Your task to perform on an android device: Go to calendar. Show me events next week Image 0: 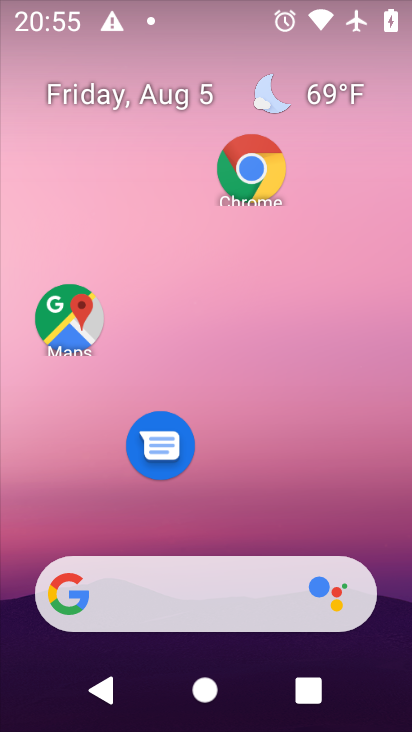
Step 0: drag from (226, 496) to (223, 108)
Your task to perform on an android device: Go to calendar. Show me events next week Image 1: 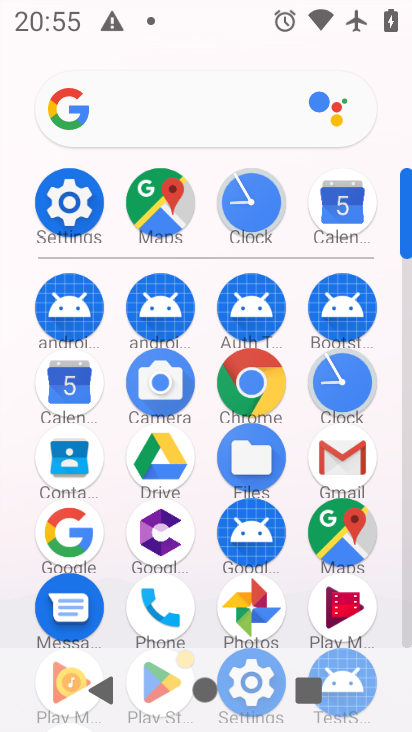
Step 1: click (332, 204)
Your task to perform on an android device: Go to calendar. Show me events next week Image 2: 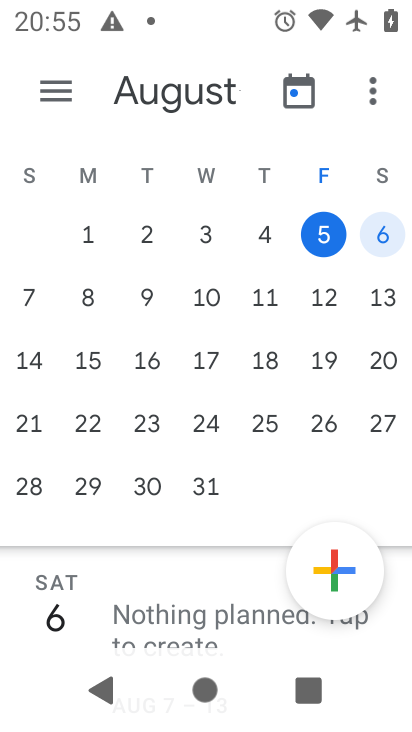
Step 2: click (30, 300)
Your task to perform on an android device: Go to calendar. Show me events next week Image 3: 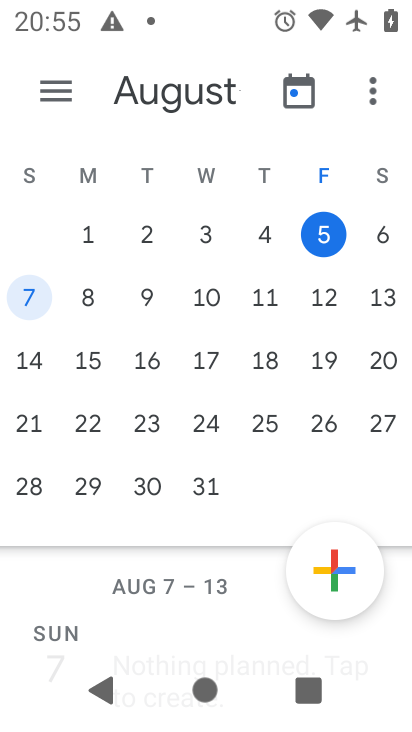
Step 3: click (29, 302)
Your task to perform on an android device: Go to calendar. Show me events next week Image 4: 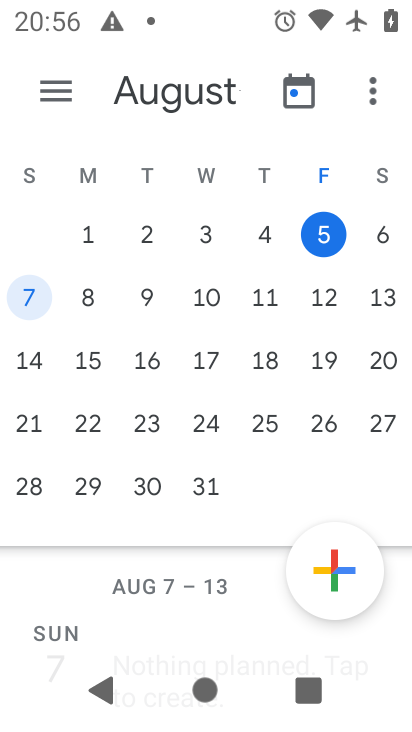
Step 4: click (33, 284)
Your task to perform on an android device: Go to calendar. Show me events next week Image 5: 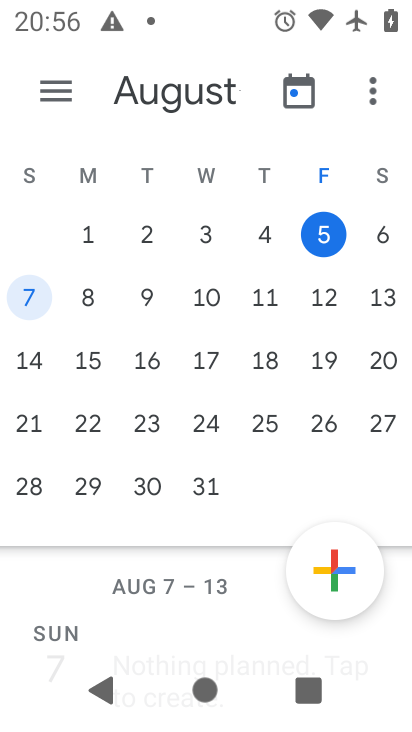
Step 5: task complete